Your task to perform on an android device: find photos in the google photos app Image 0: 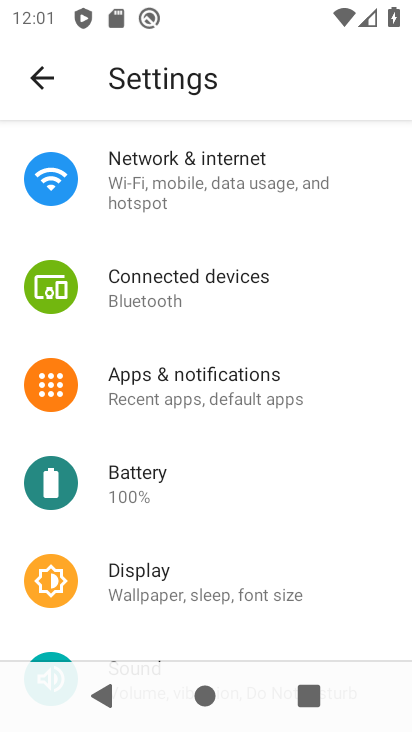
Step 0: press home button
Your task to perform on an android device: find photos in the google photos app Image 1: 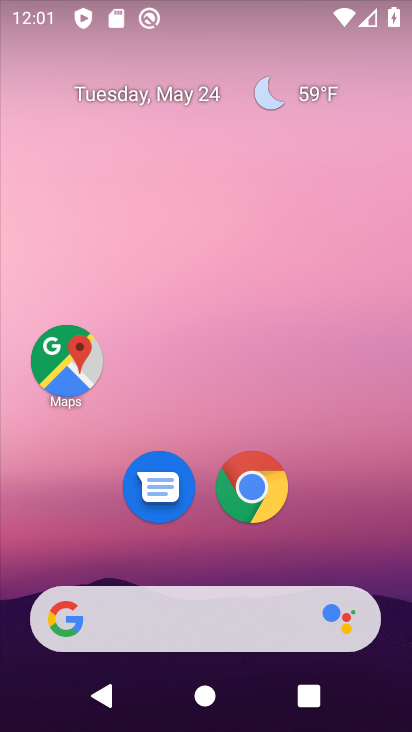
Step 1: drag from (210, 544) to (263, 44)
Your task to perform on an android device: find photos in the google photos app Image 2: 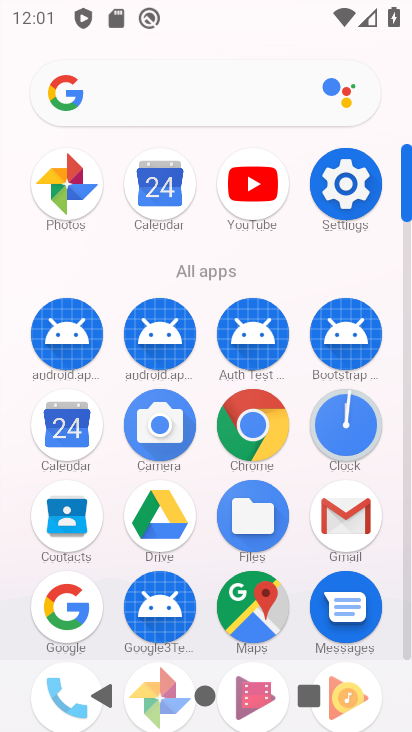
Step 2: click (76, 198)
Your task to perform on an android device: find photos in the google photos app Image 3: 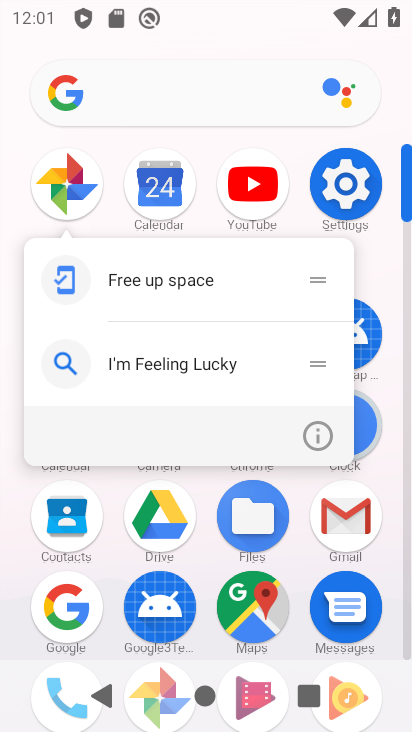
Step 3: click (56, 184)
Your task to perform on an android device: find photos in the google photos app Image 4: 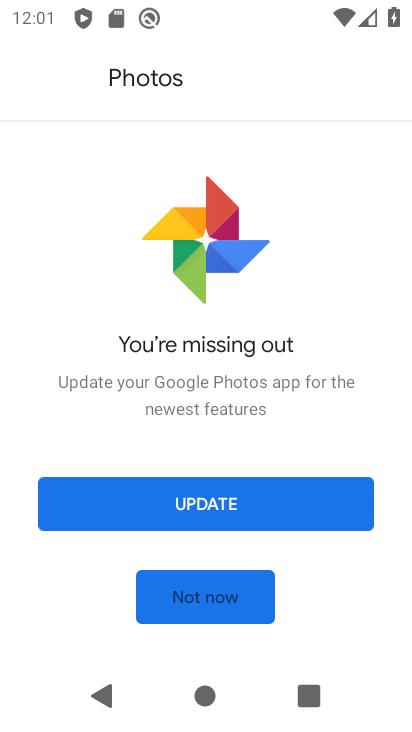
Step 4: click (195, 484)
Your task to perform on an android device: find photos in the google photos app Image 5: 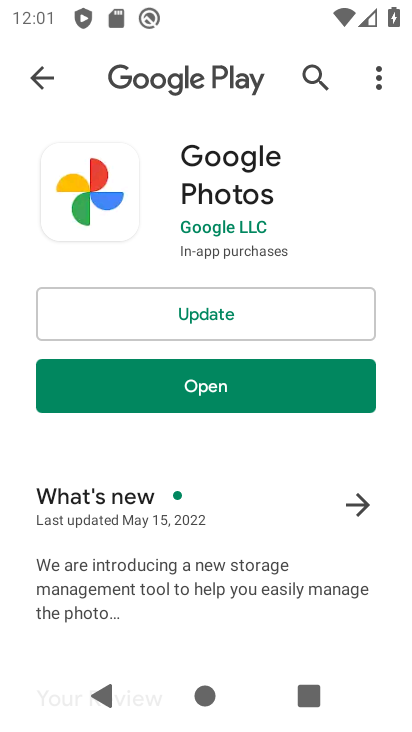
Step 5: click (239, 319)
Your task to perform on an android device: find photos in the google photos app Image 6: 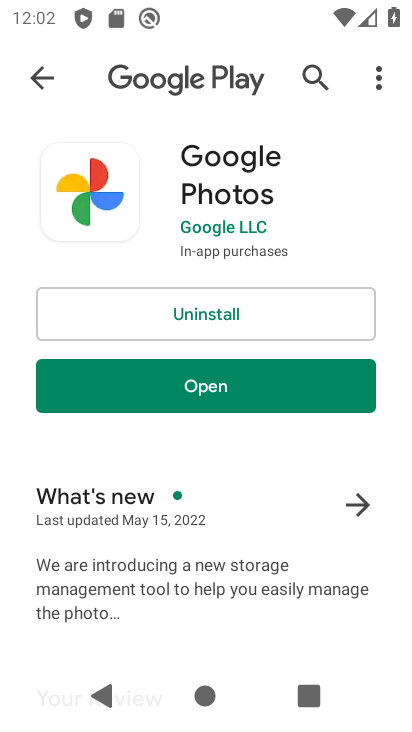
Step 6: click (243, 379)
Your task to perform on an android device: find photos in the google photos app Image 7: 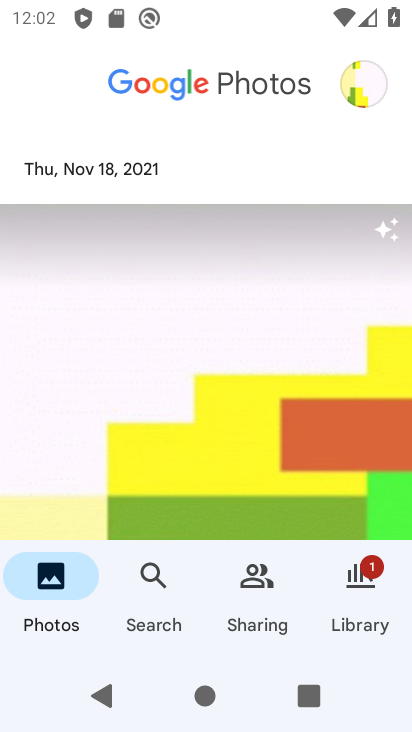
Step 7: task complete